Your task to perform on an android device: open app "eBay: The shopping marketplace" (install if not already installed) and go to login screen Image 0: 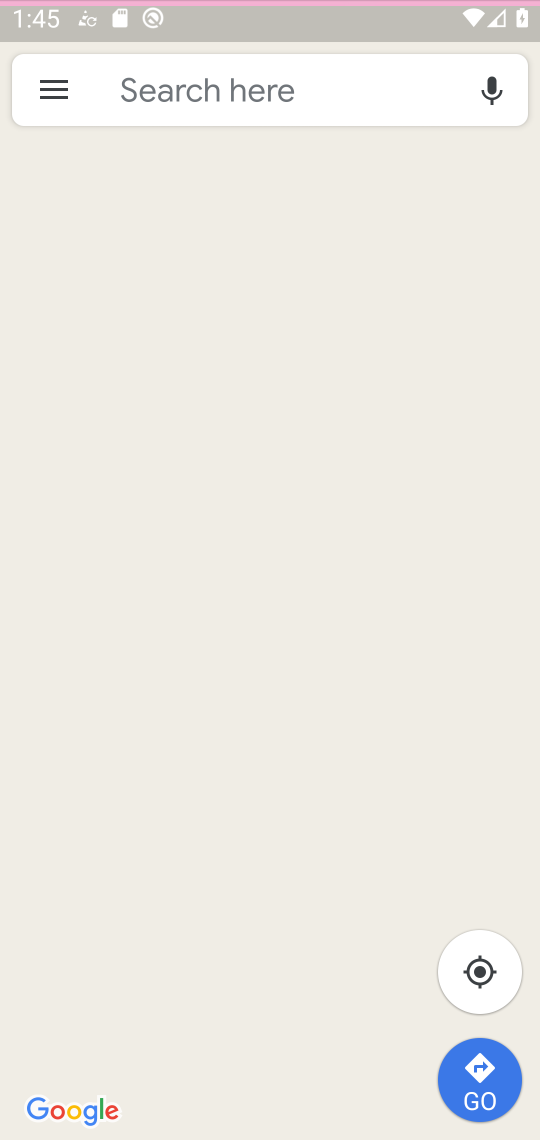
Step 0: click (369, 132)
Your task to perform on an android device: open app "eBay: The shopping marketplace" (install if not already installed) and go to login screen Image 1: 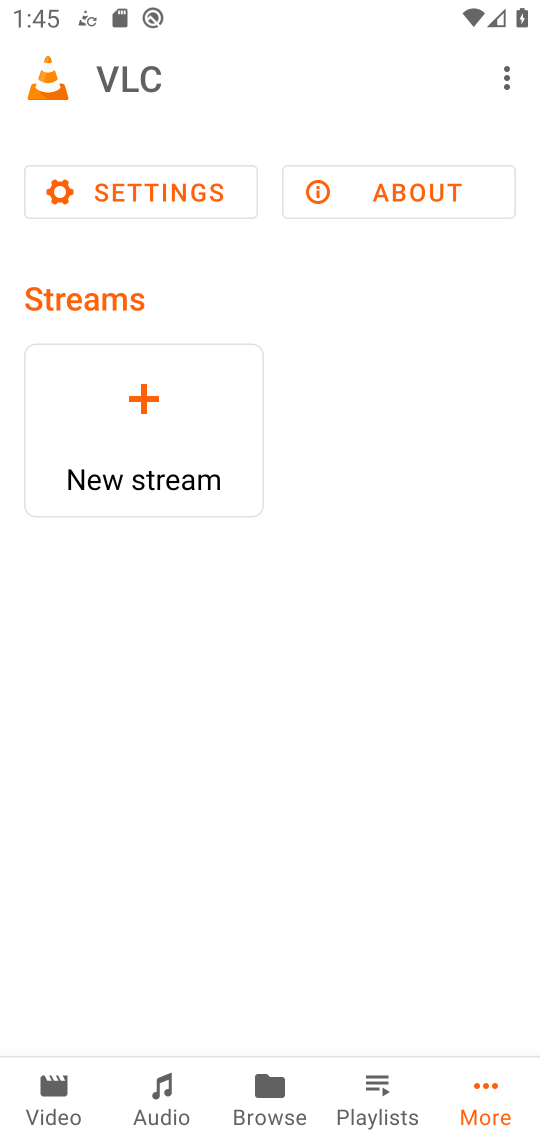
Step 1: press home button
Your task to perform on an android device: open app "eBay: The shopping marketplace" (install if not already installed) and go to login screen Image 2: 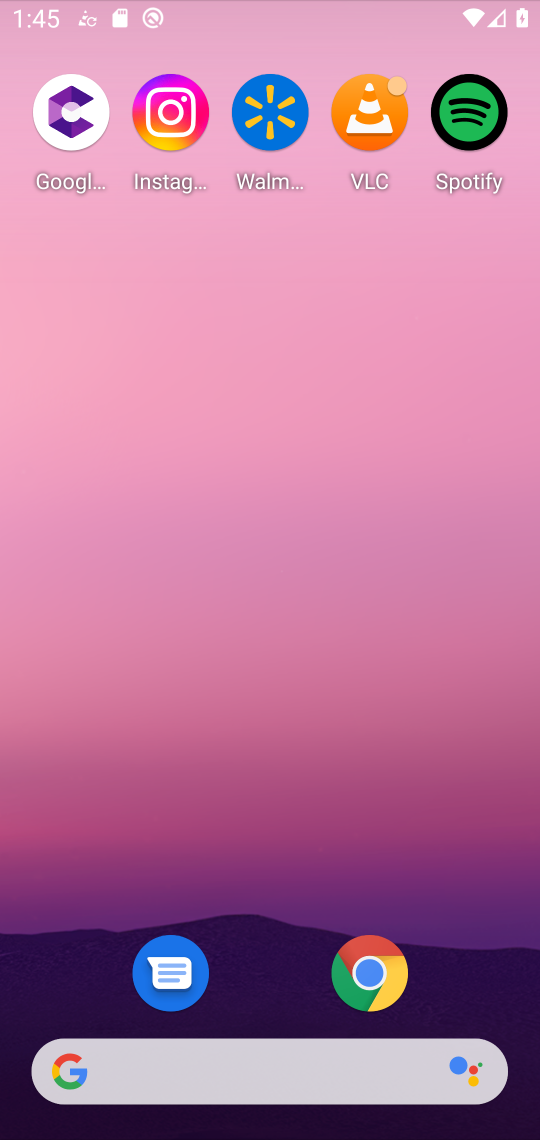
Step 2: drag from (183, 970) to (309, 156)
Your task to perform on an android device: open app "eBay: The shopping marketplace" (install if not already installed) and go to login screen Image 3: 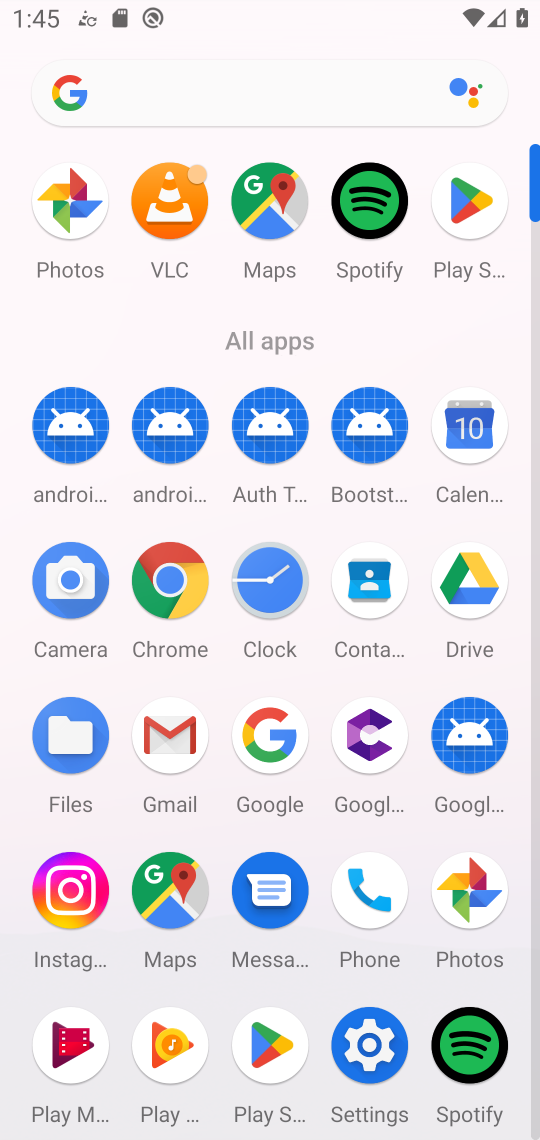
Step 3: click (461, 193)
Your task to perform on an android device: open app "eBay: The shopping marketplace" (install if not already installed) and go to login screen Image 4: 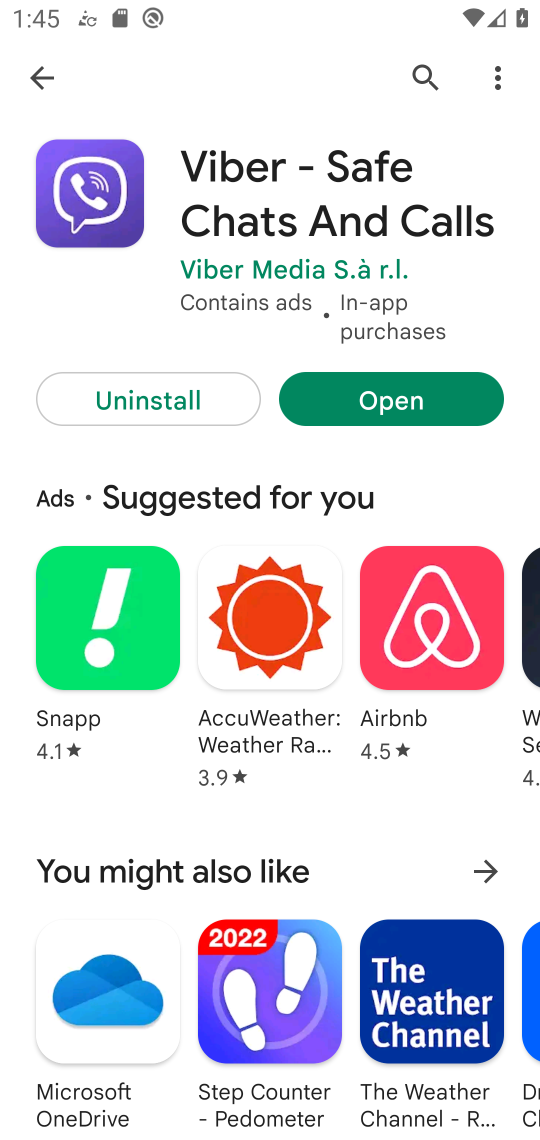
Step 4: click (56, 69)
Your task to perform on an android device: open app "eBay: The shopping marketplace" (install if not already installed) and go to login screen Image 5: 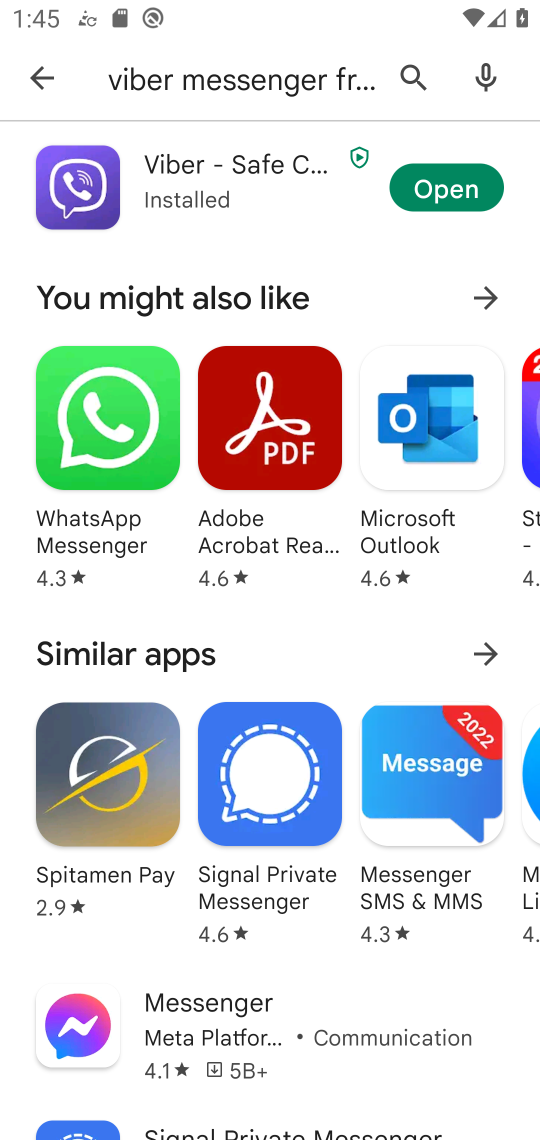
Step 5: click (44, 77)
Your task to perform on an android device: open app "eBay: The shopping marketplace" (install if not already installed) and go to login screen Image 6: 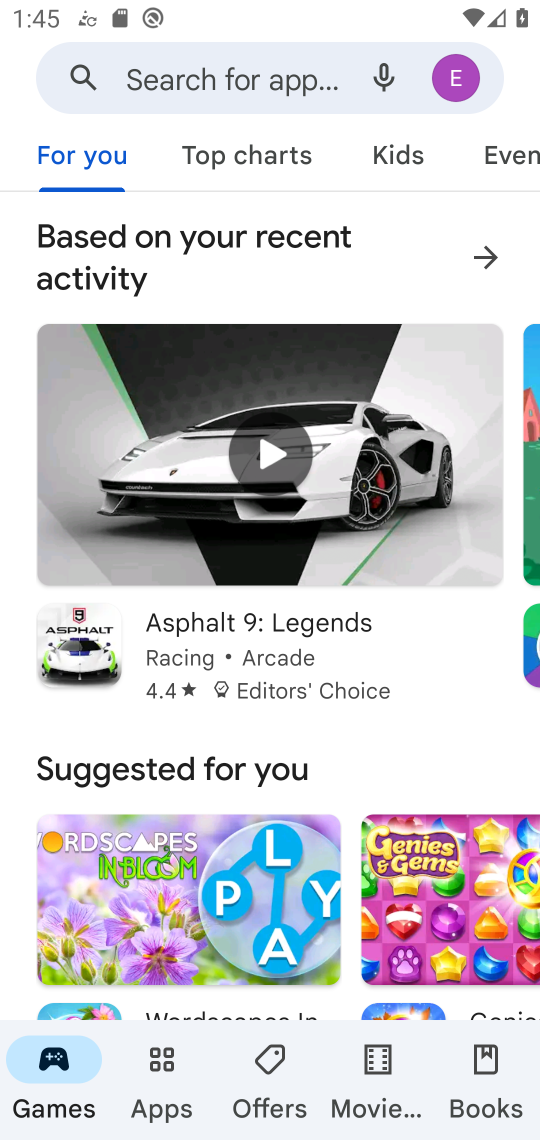
Step 6: click (133, 64)
Your task to perform on an android device: open app "eBay: The shopping marketplace" (install if not already installed) and go to login screen Image 7: 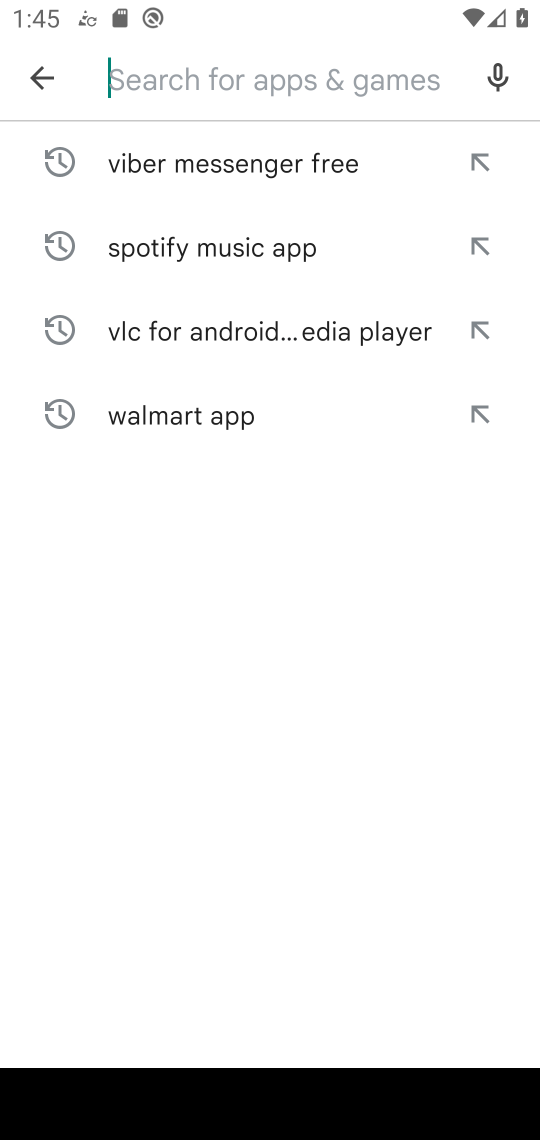
Step 7: type "ebay "
Your task to perform on an android device: open app "eBay: The shopping marketplace" (install if not already installed) and go to login screen Image 8: 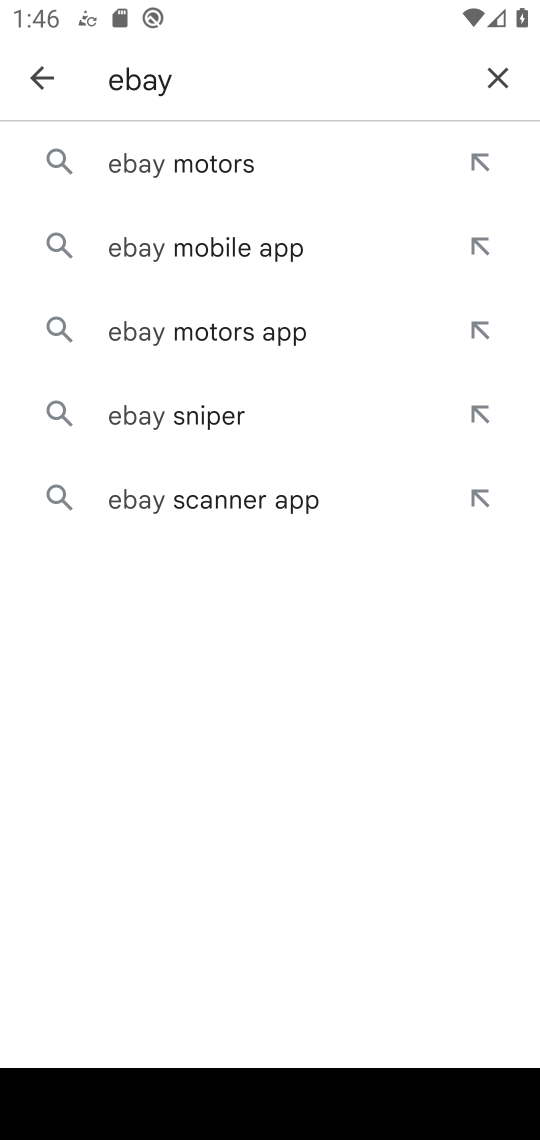
Step 8: click (194, 336)
Your task to perform on an android device: open app "eBay: The shopping marketplace" (install if not already installed) and go to login screen Image 9: 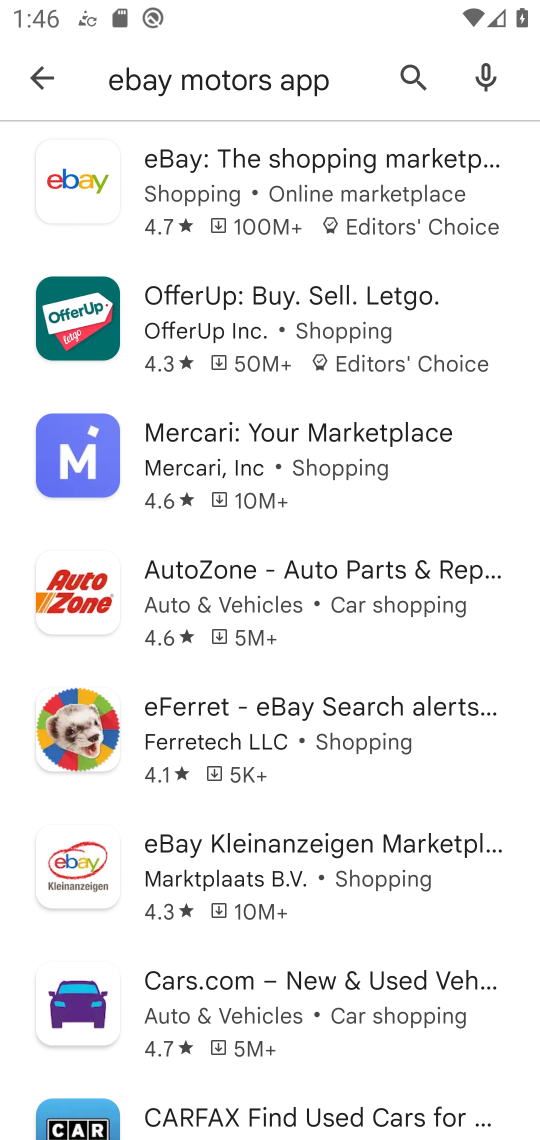
Step 9: click (218, 176)
Your task to perform on an android device: open app "eBay: The shopping marketplace" (install if not already installed) and go to login screen Image 10: 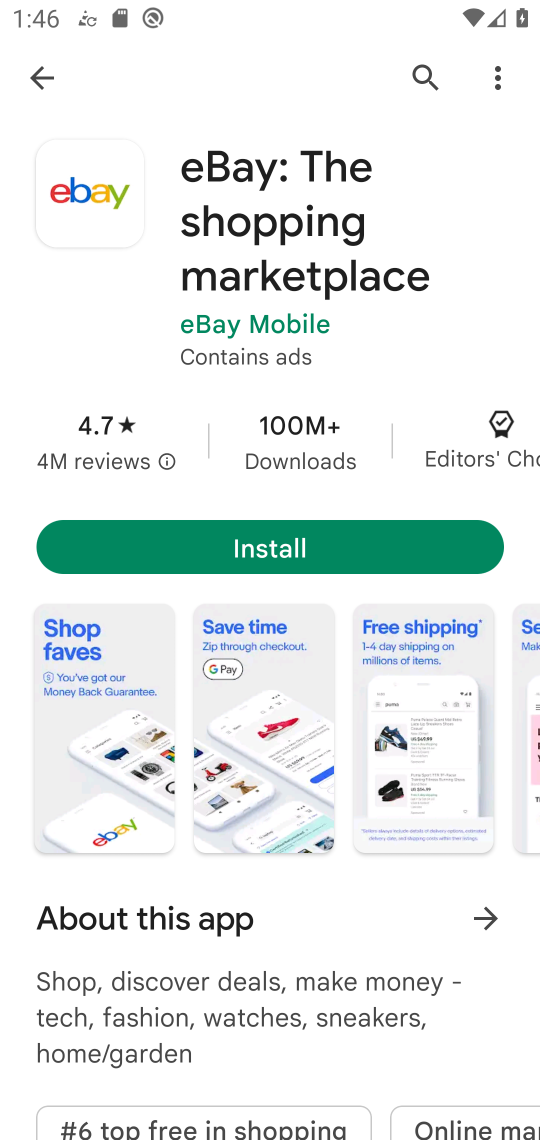
Step 10: click (243, 537)
Your task to perform on an android device: open app "eBay: The shopping marketplace" (install if not already installed) and go to login screen Image 11: 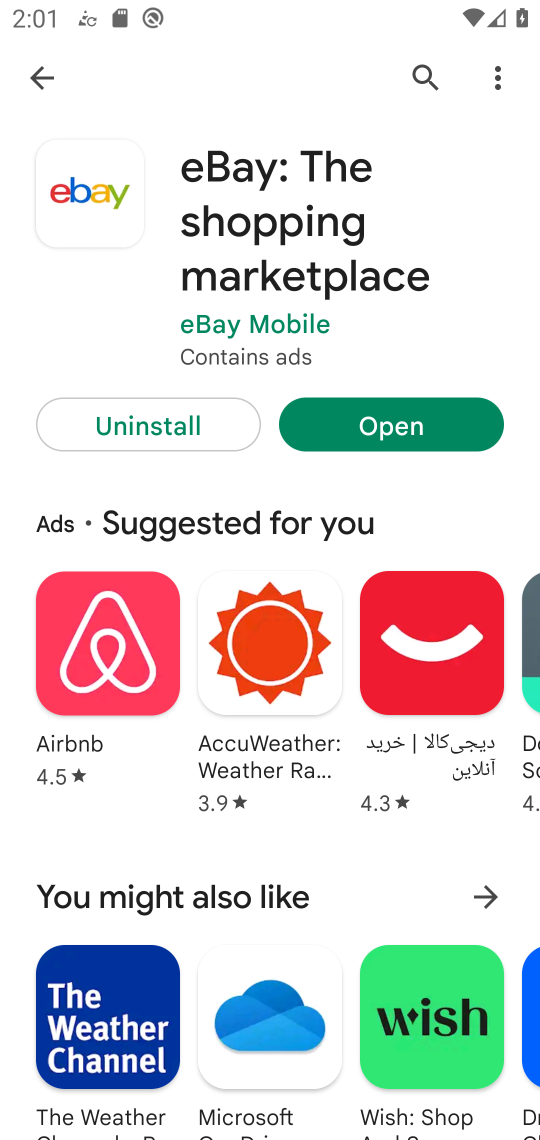
Step 11: click (305, 429)
Your task to perform on an android device: open app "eBay: The shopping marketplace" (install if not already installed) and go to login screen Image 12: 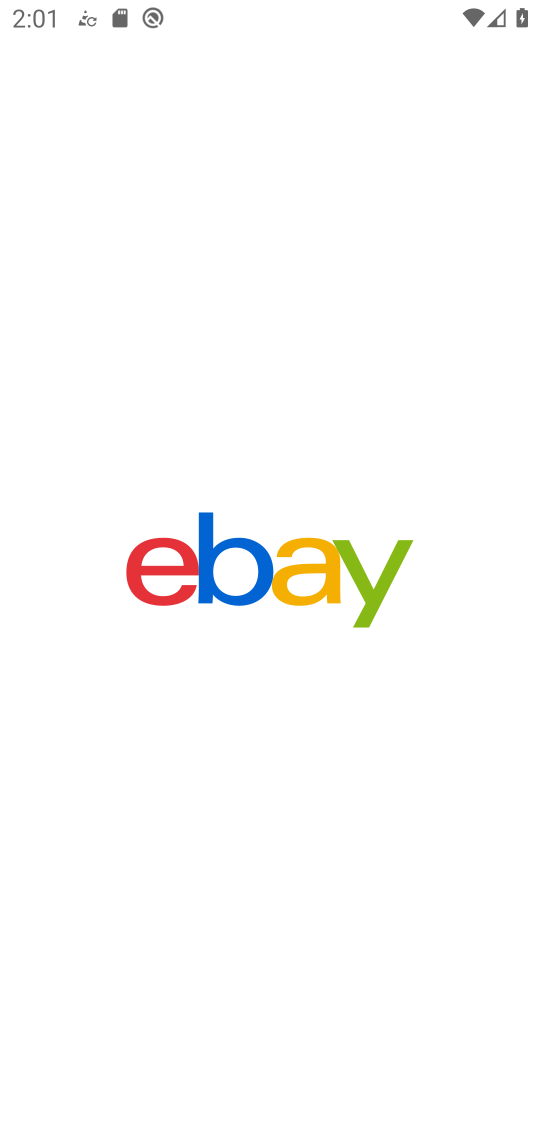
Step 12: task complete